Your task to perform on an android device: change text size in settings app Image 0: 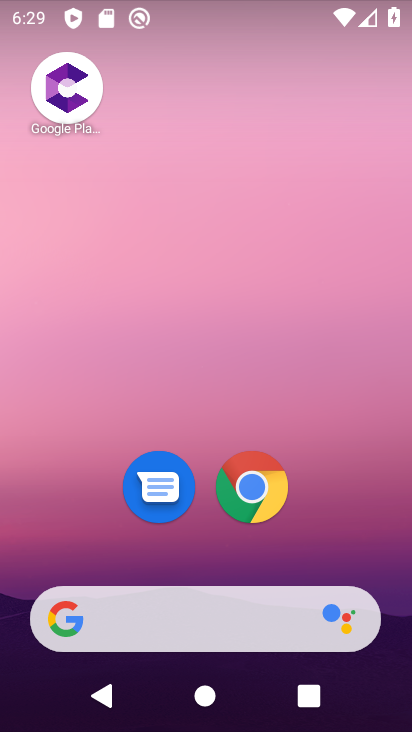
Step 0: drag from (305, 525) to (288, 13)
Your task to perform on an android device: change text size in settings app Image 1: 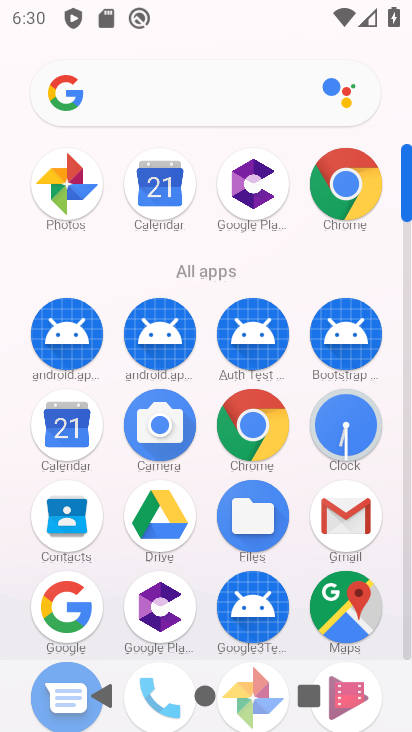
Step 1: click (407, 508)
Your task to perform on an android device: change text size in settings app Image 2: 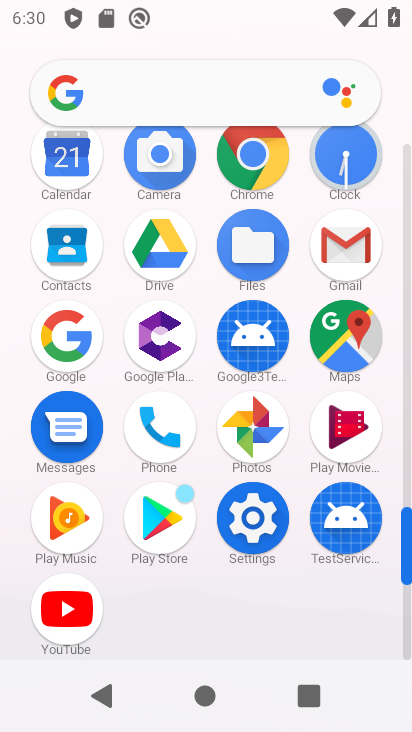
Step 2: click (244, 540)
Your task to perform on an android device: change text size in settings app Image 3: 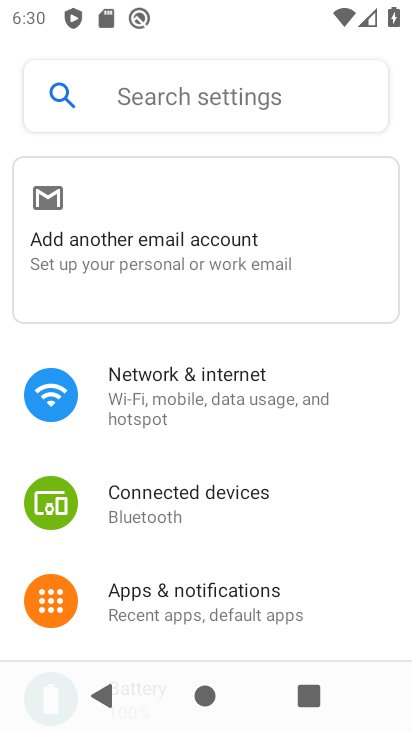
Step 3: drag from (318, 600) to (121, 206)
Your task to perform on an android device: change text size in settings app Image 4: 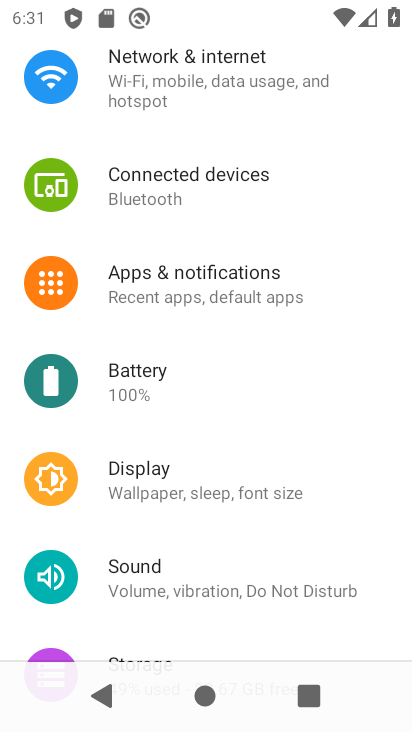
Step 4: click (134, 458)
Your task to perform on an android device: change text size in settings app Image 5: 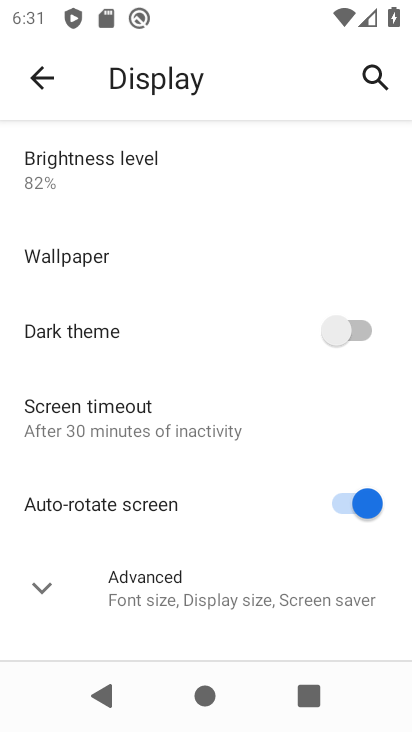
Step 5: click (122, 600)
Your task to perform on an android device: change text size in settings app Image 6: 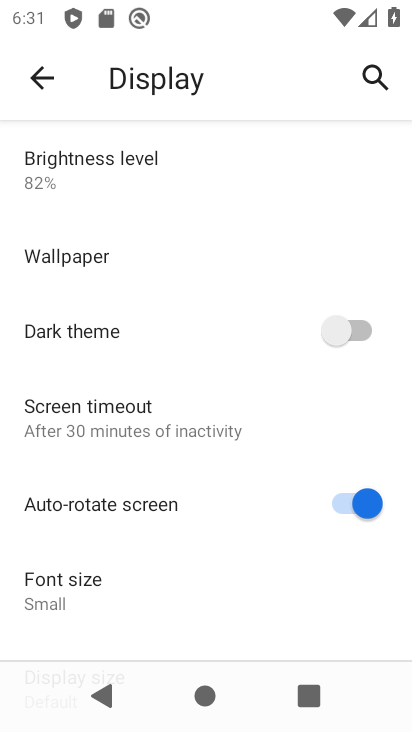
Step 6: click (81, 610)
Your task to perform on an android device: change text size in settings app Image 7: 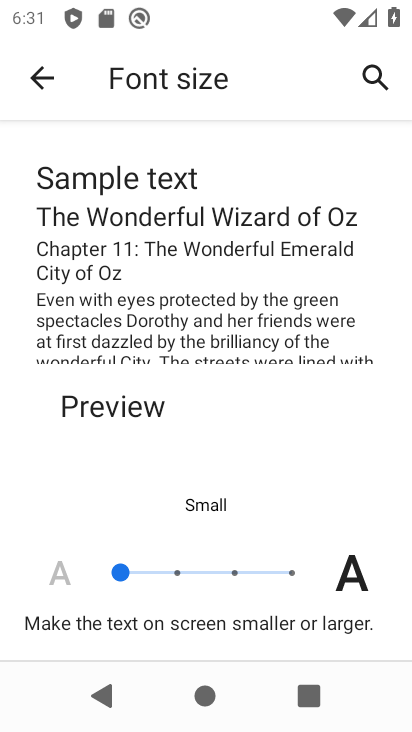
Step 7: click (347, 593)
Your task to perform on an android device: change text size in settings app Image 8: 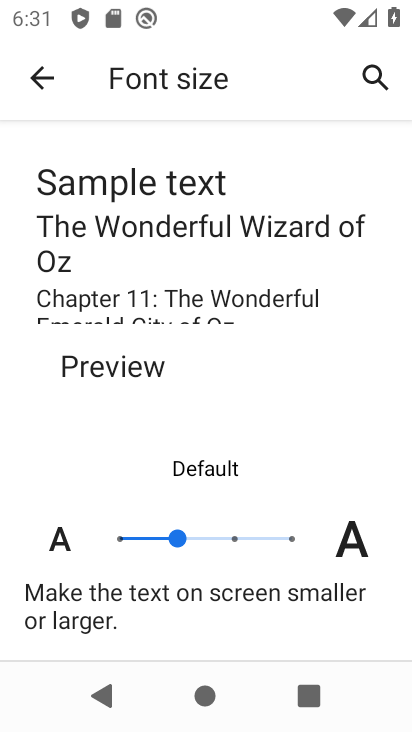
Step 8: task complete